Your task to perform on an android device: Go to Google maps Image 0: 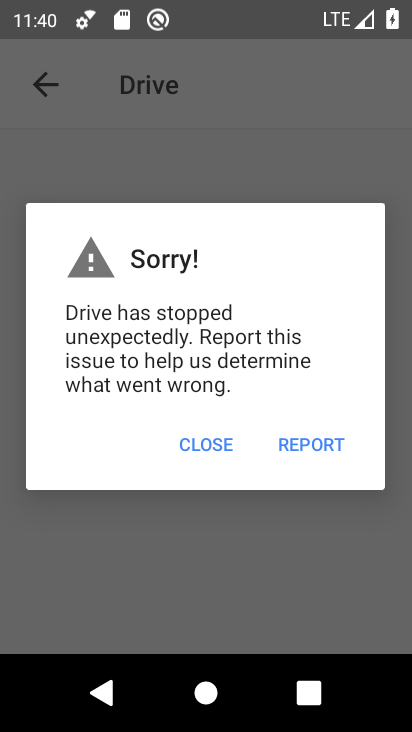
Step 0: press home button
Your task to perform on an android device: Go to Google maps Image 1: 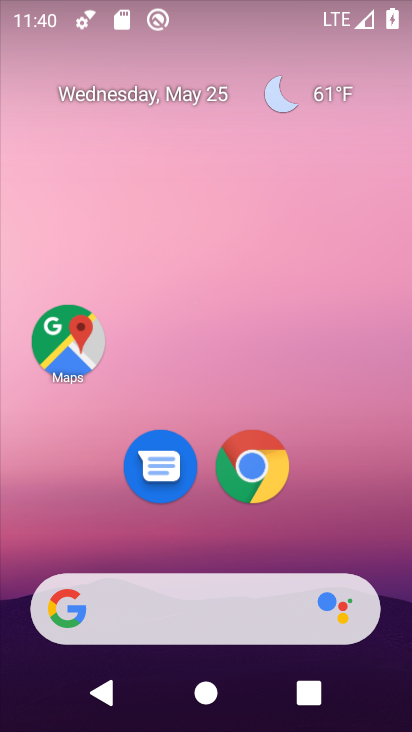
Step 1: drag from (192, 563) to (212, 183)
Your task to perform on an android device: Go to Google maps Image 2: 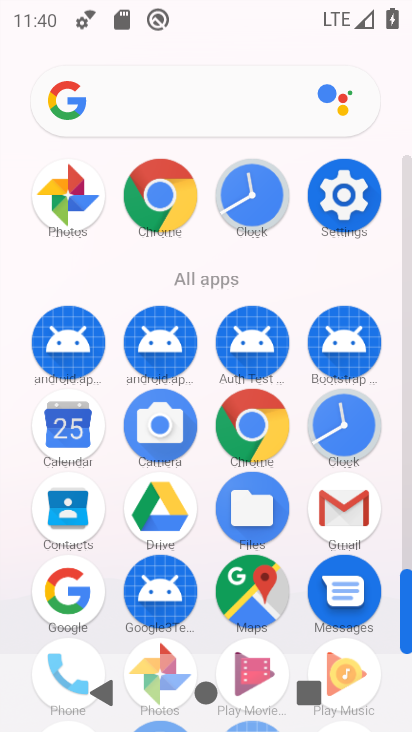
Step 2: drag from (135, 554) to (142, 317)
Your task to perform on an android device: Go to Google maps Image 3: 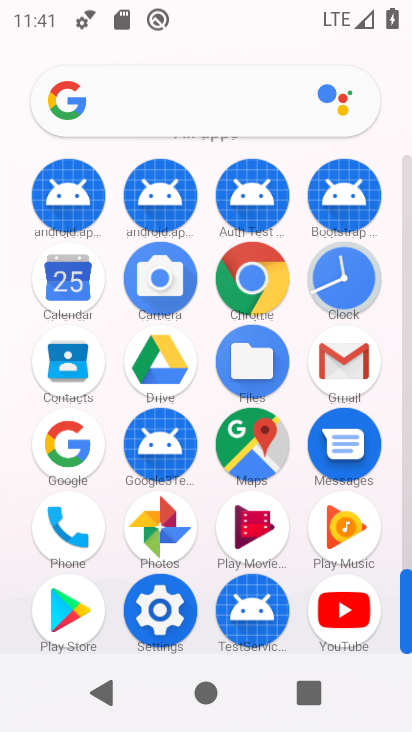
Step 3: click (252, 445)
Your task to perform on an android device: Go to Google maps Image 4: 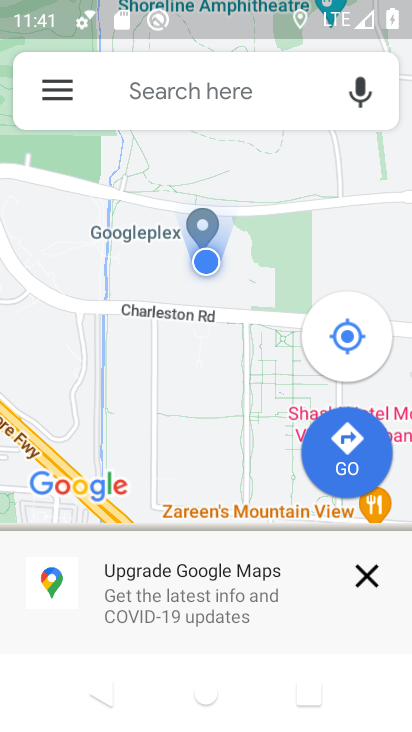
Step 4: task complete